Your task to perform on an android device: turn off data saver in the chrome app Image 0: 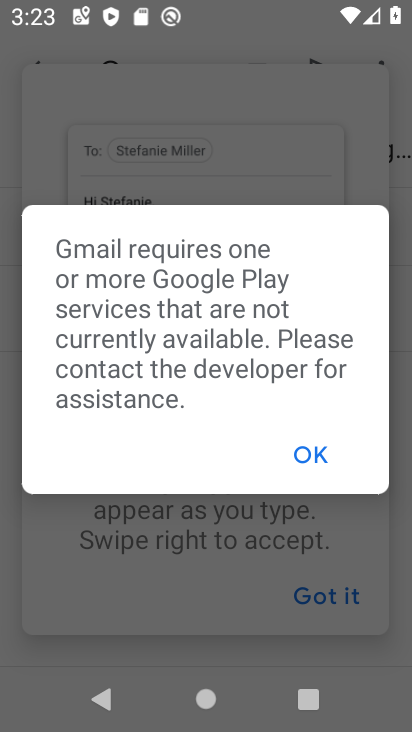
Step 0: press home button
Your task to perform on an android device: turn off data saver in the chrome app Image 1: 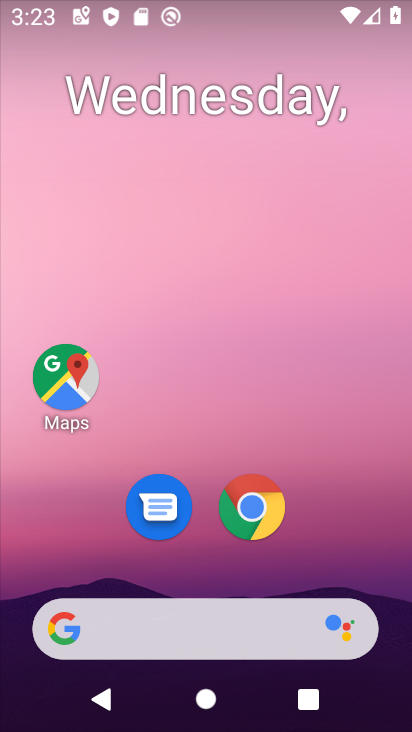
Step 1: click (270, 518)
Your task to perform on an android device: turn off data saver in the chrome app Image 2: 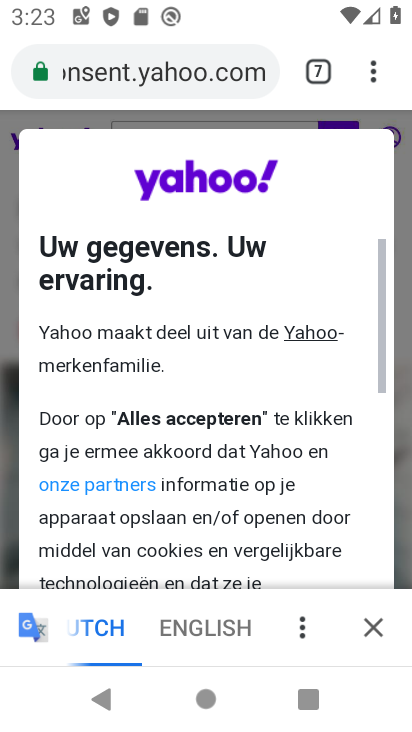
Step 2: click (374, 68)
Your task to perform on an android device: turn off data saver in the chrome app Image 3: 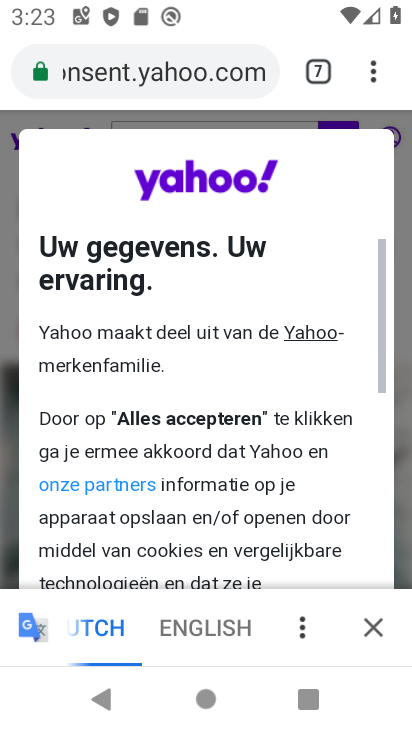
Step 3: click (371, 62)
Your task to perform on an android device: turn off data saver in the chrome app Image 4: 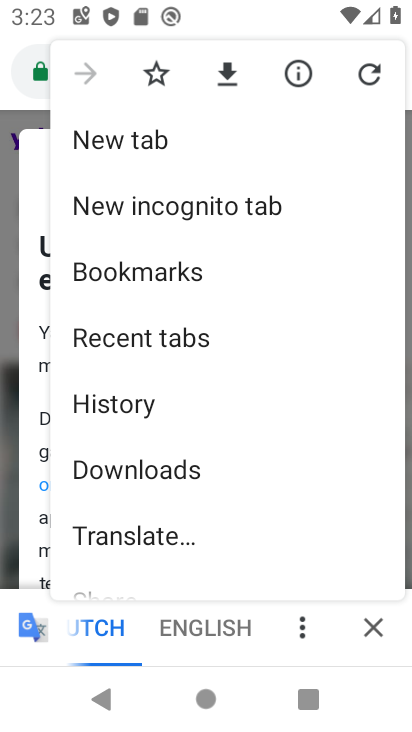
Step 4: drag from (160, 513) to (107, 102)
Your task to perform on an android device: turn off data saver in the chrome app Image 5: 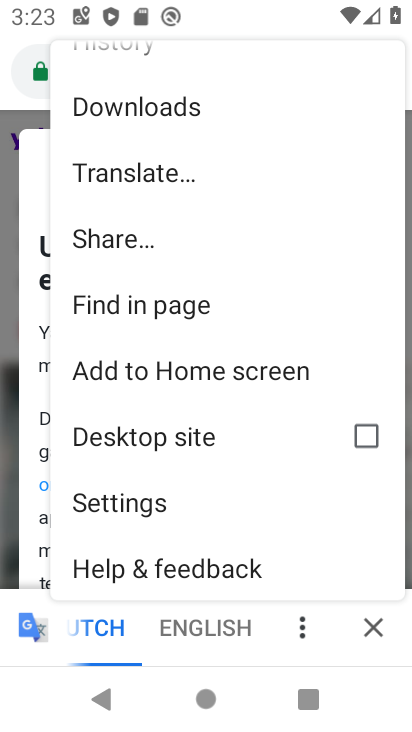
Step 5: click (136, 500)
Your task to perform on an android device: turn off data saver in the chrome app Image 6: 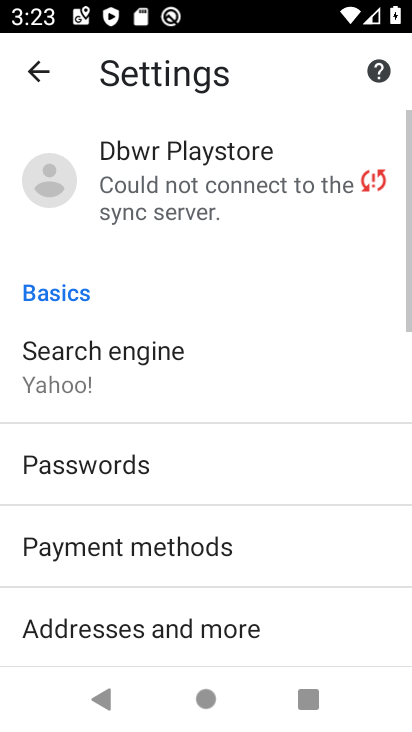
Step 6: drag from (164, 429) to (151, 4)
Your task to perform on an android device: turn off data saver in the chrome app Image 7: 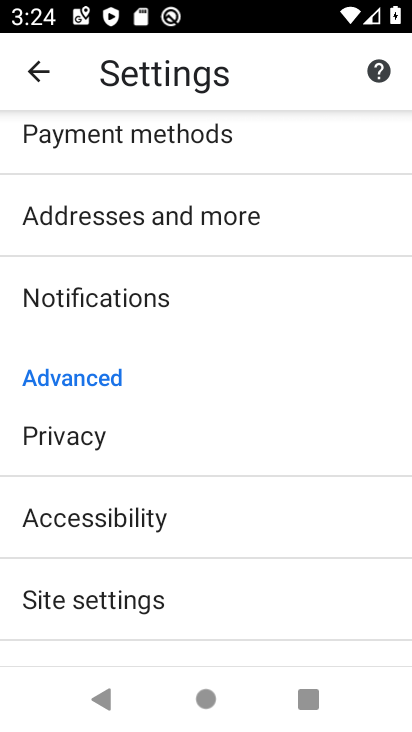
Step 7: drag from (143, 598) to (130, 171)
Your task to perform on an android device: turn off data saver in the chrome app Image 8: 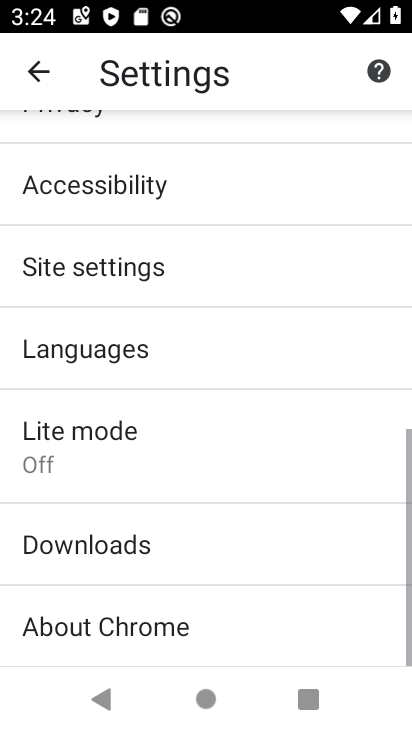
Step 8: drag from (132, 618) to (135, 509)
Your task to perform on an android device: turn off data saver in the chrome app Image 9: 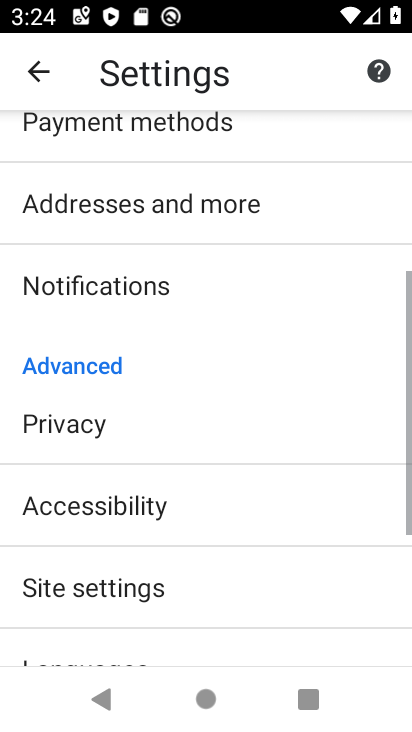
Step 9: click (135, 509)
Your task to perform on an android device: turn off data saver in the chrome app Image 10: 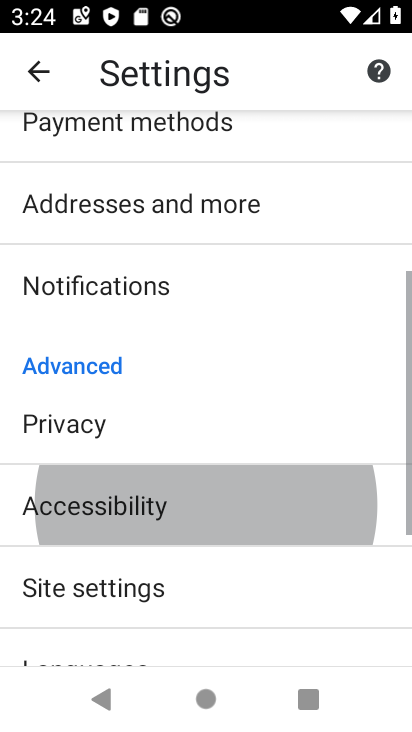
Step 10: drag from (135, 509) to (153, 168)
Your task to perform on an android device: turn off data saver in the chrome app Image 11: 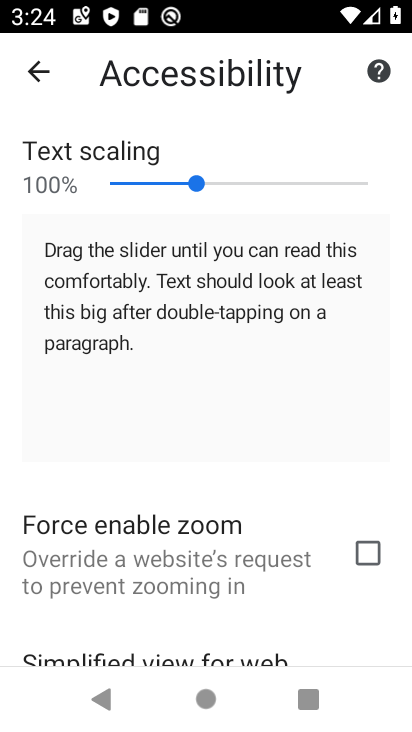
Step 11: click (32, 80)
Your task to perform on an android device: turn off data saver in the chrome app Image 12: 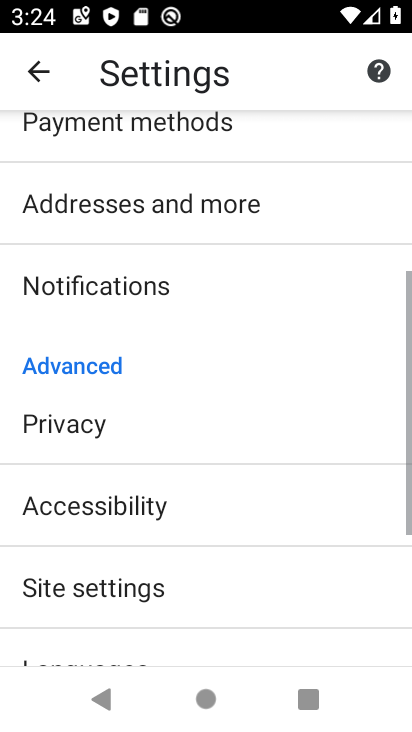
Step 12: drag from (169, 591) to (112, 90)
Your task to perform on an android device: turn off data saver in the chrome app Image 13: 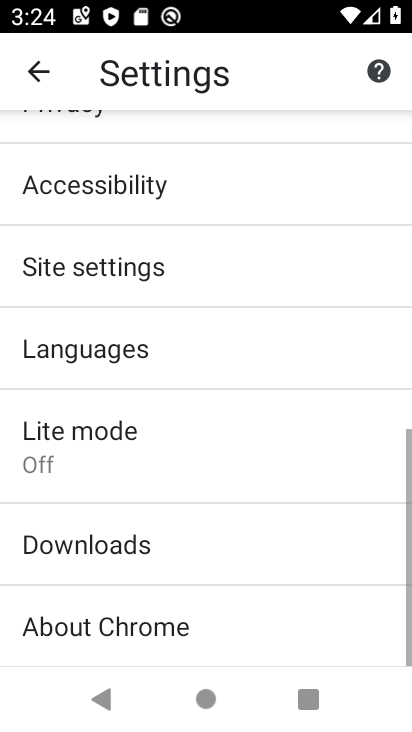
Step 13: click (82, 443)
Your task to perform on an android device: turn off data saver in the chrome app Image 14: 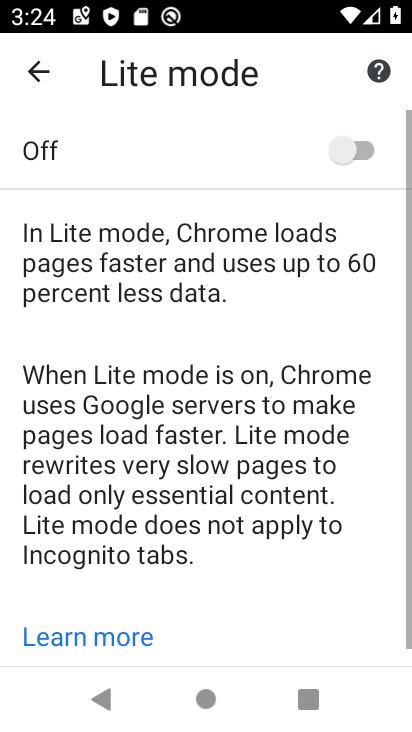
Step 14: click (363, 142)
Your task to perform on an android device: turn off data saver in the chrome app Image 15: 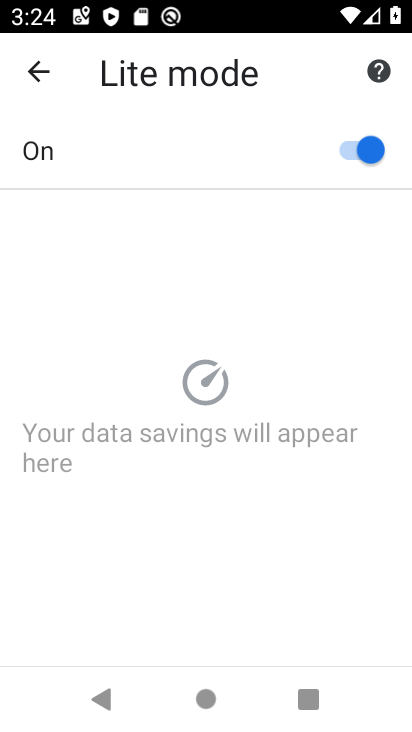
Step 15: task complete